Your task to perform on an android device: View the shopping cart on costco. Add "razer huntsman" to the cart on costco, then select checkout. Image 0: 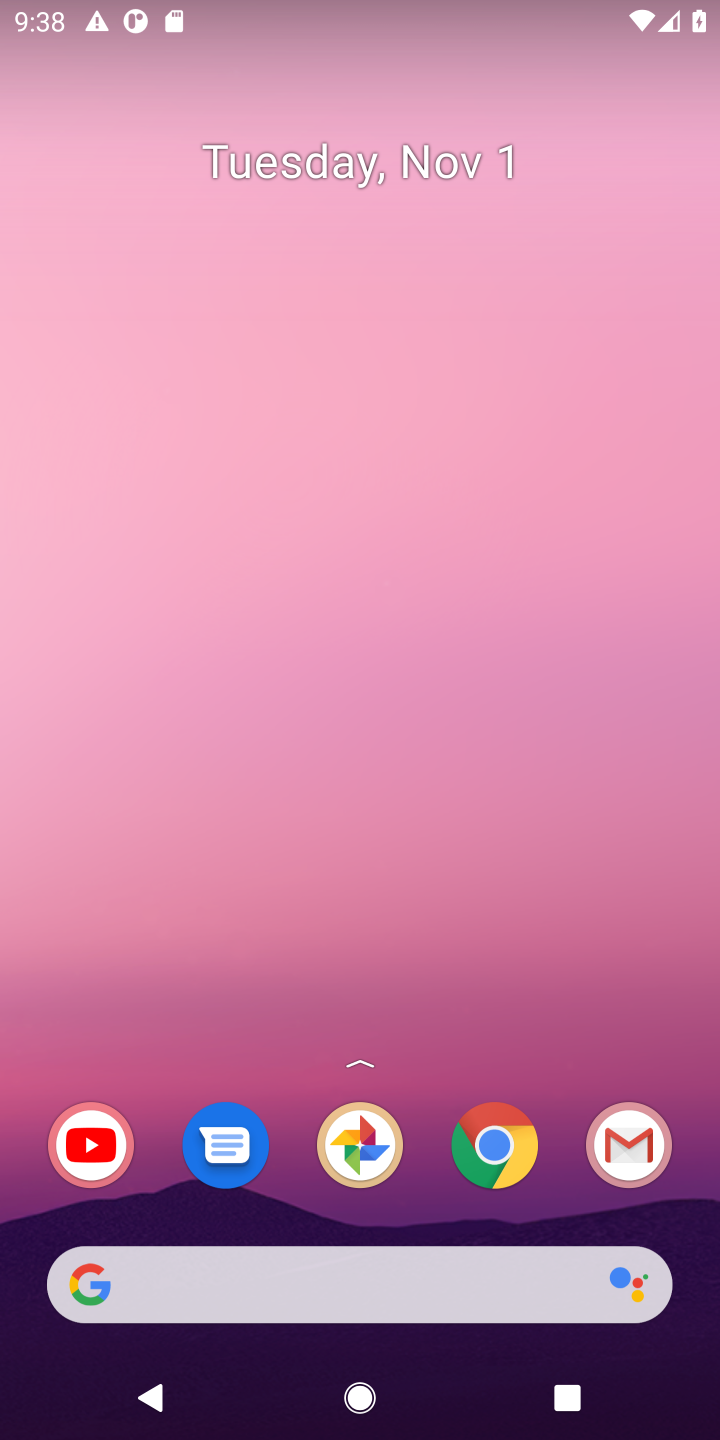
Step 0: press home button
Your task to perform on an android device: View the shopping cart on costco. Add "razer huntsman" to the cart on costco, then select checkout. Image 1: 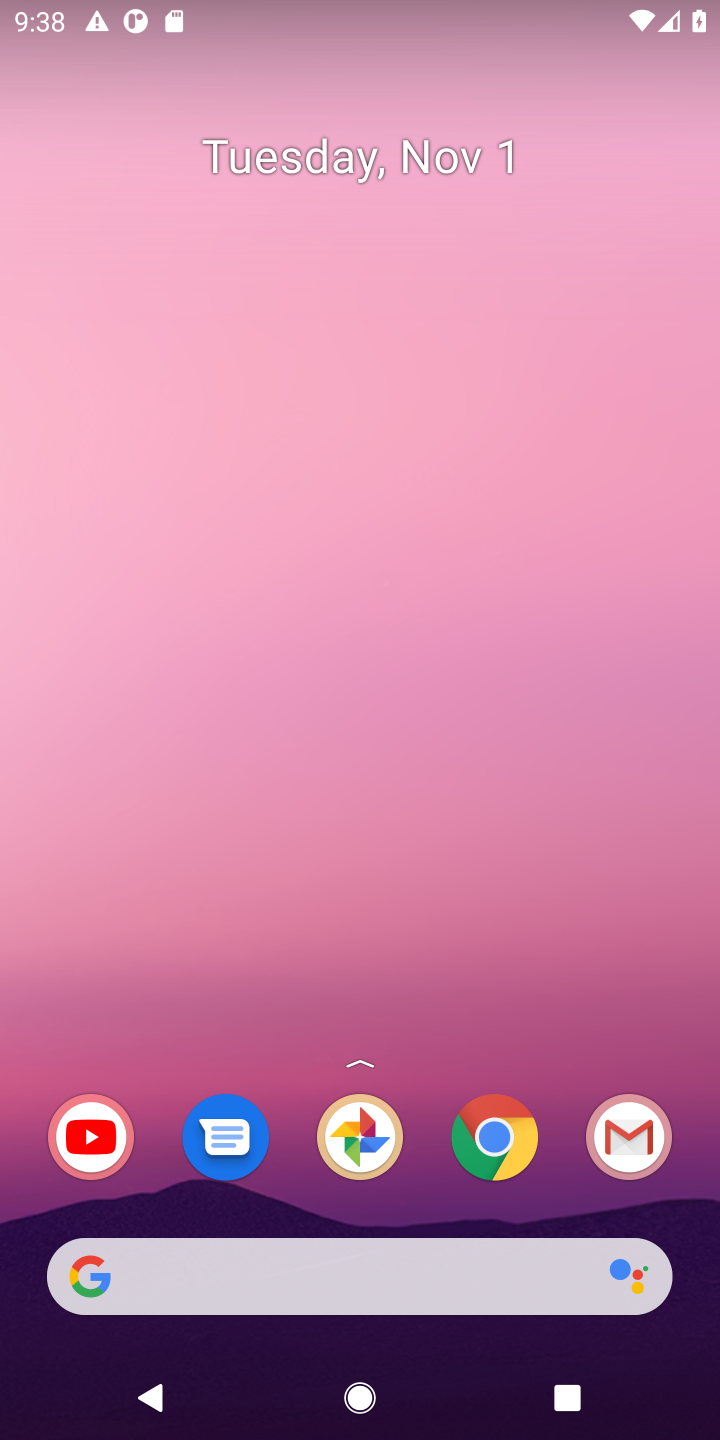
Step 1: drag from (318, 1166) to (362, 349)
Your task to perform on an android device: View the shopping cart on costco. Add "razer huntsman" to the cart on costco, then select checkout. Image 2: 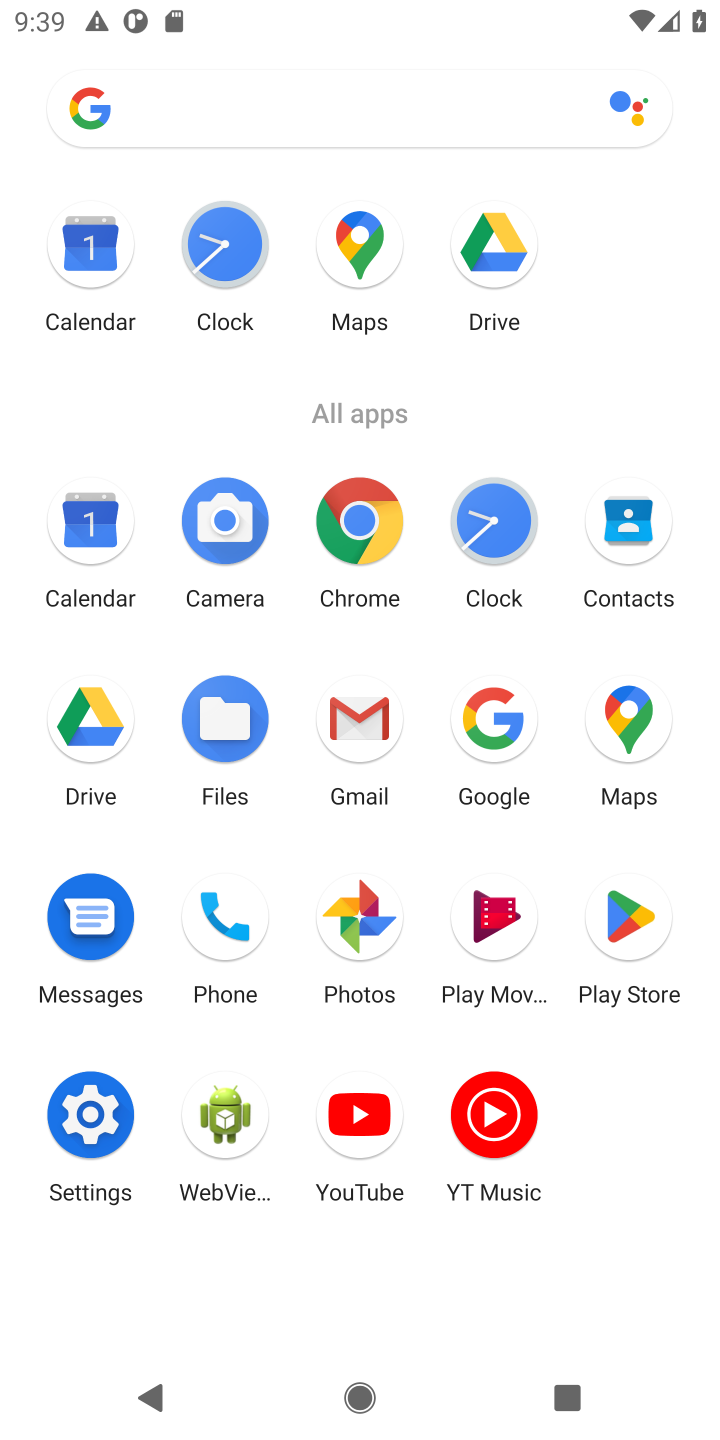
Step 2: click (493, 712)
Your task to perform on an android device: View the shopping cart on costco. Add "razer huntsman" to the cart on costco, then select checkout. Image 3: 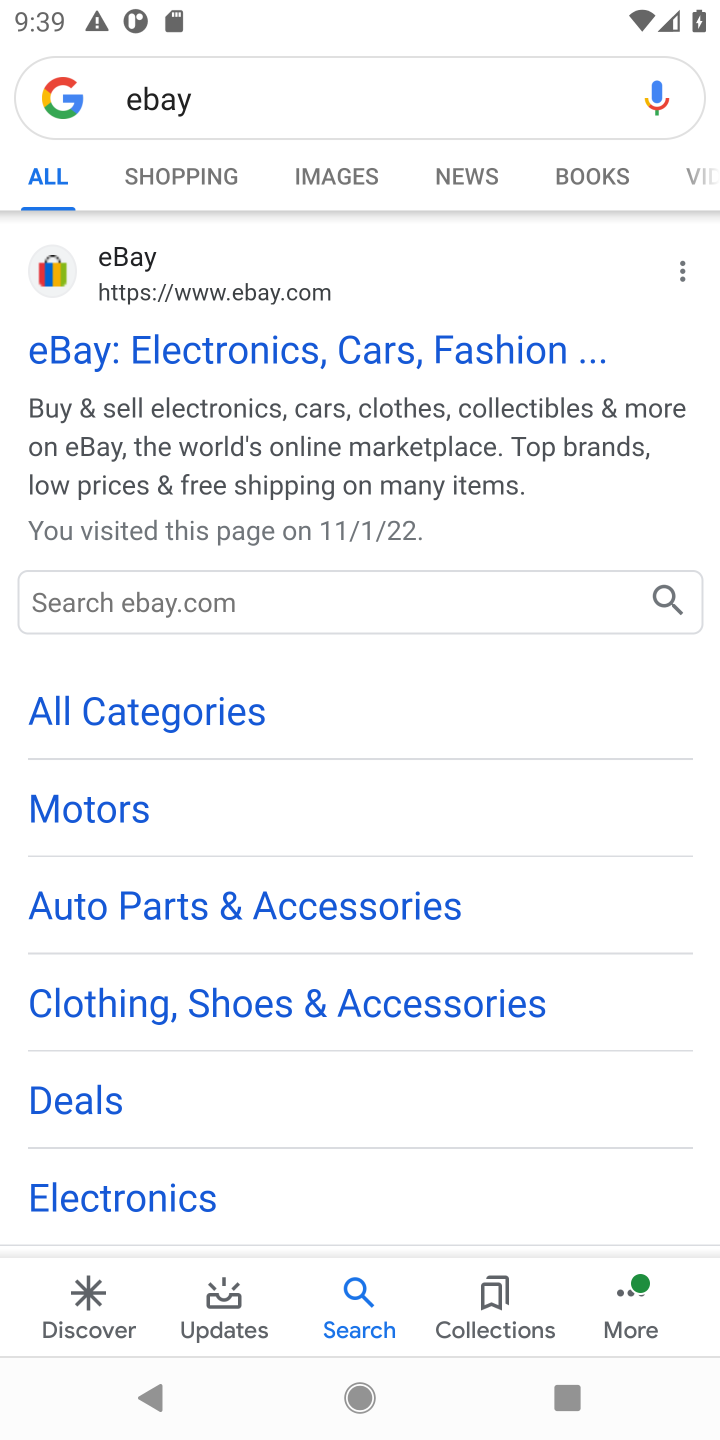
Step 3: click (157, 294)
Your task to perform on an android device: View the shopping cart on costco. Add "razer huntsman" to the cart on costco, then select checkout. Image 4: 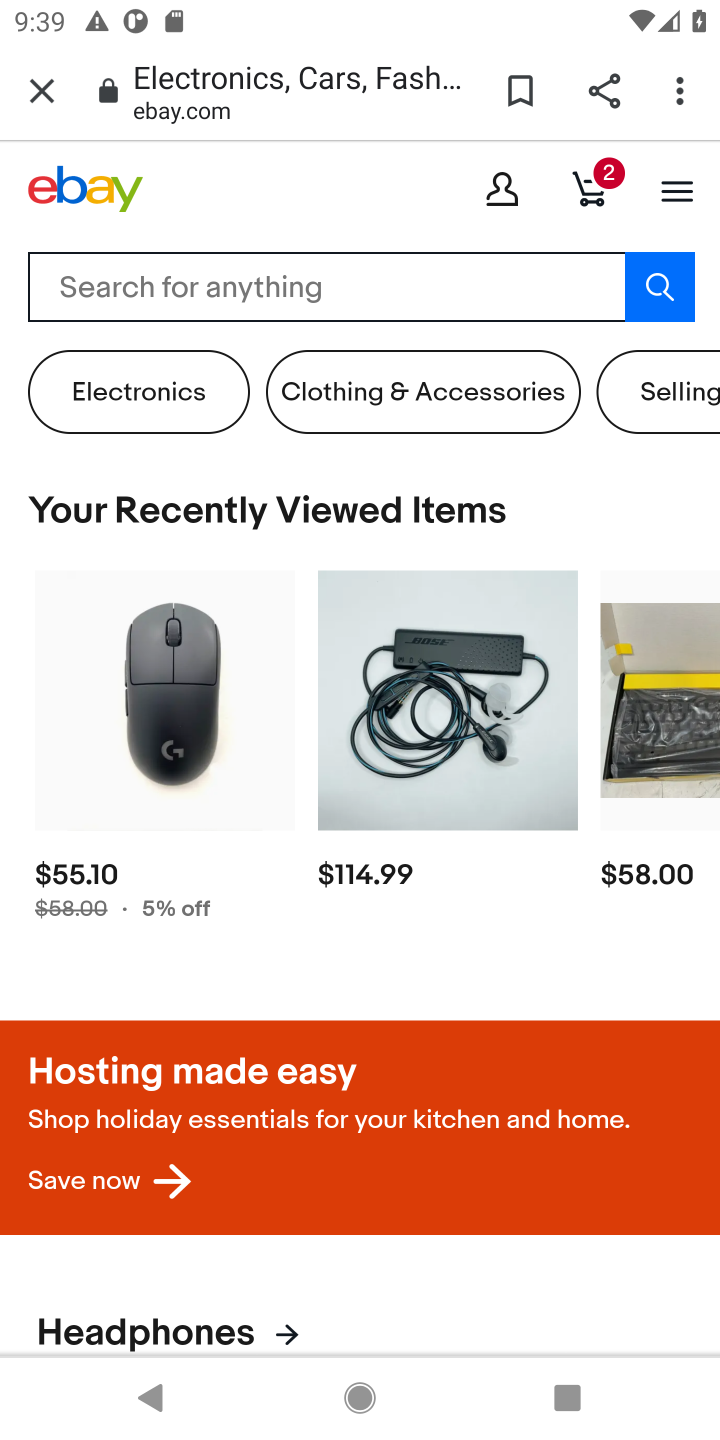
Step 4: click (33, 100)
Your task to perform on an android device: View the shopping cart on costco. Add "razer huntsman" to the cart on costco, then select checkout. Image 5: 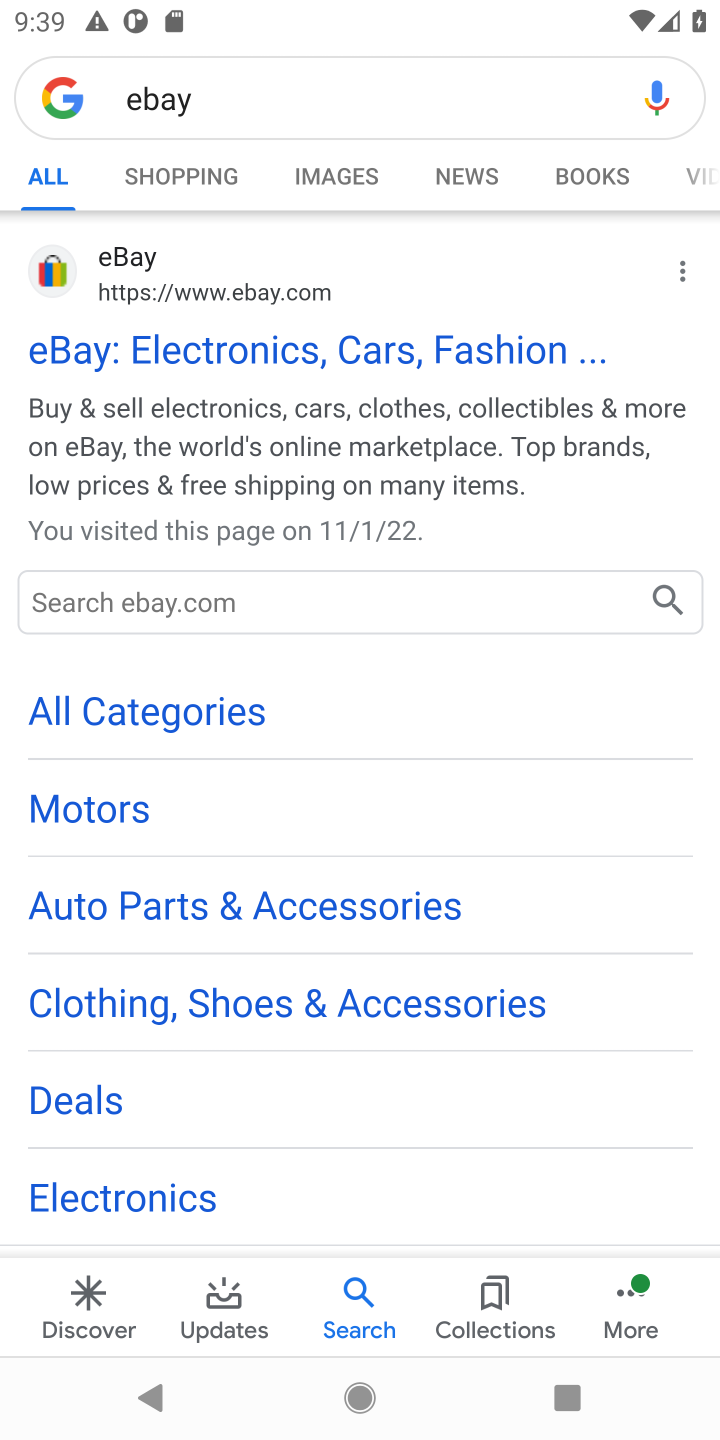
Step 5: click (267, 92)
Your task to perform on an android device: View the shopping cart on costco. Add "razer huntsman" to the cart on costco, then select checkout. Image 6: 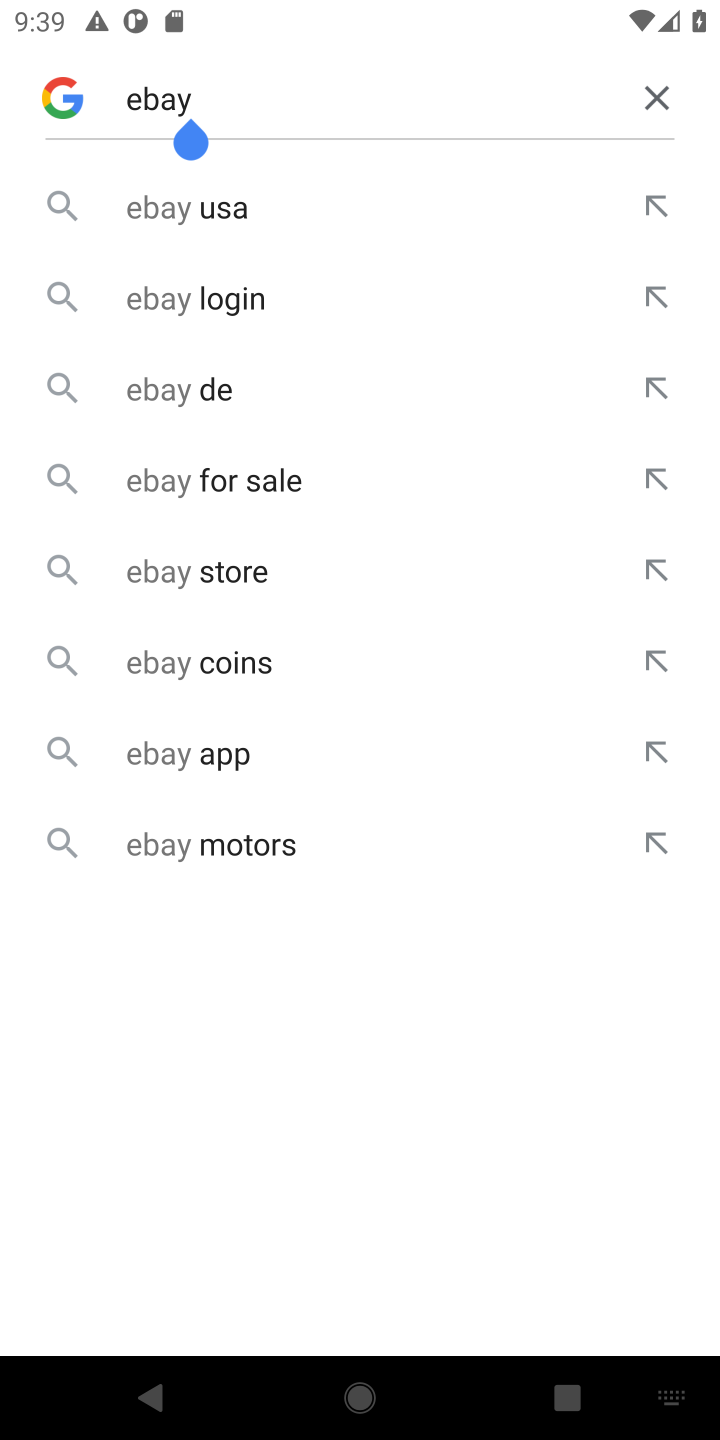
Step 6: click (653, 97)
Your task to perform on an android device: View the shopping cart on costco. Add "razer huntsman" to the cart on costco, then select checkout. Image 7: 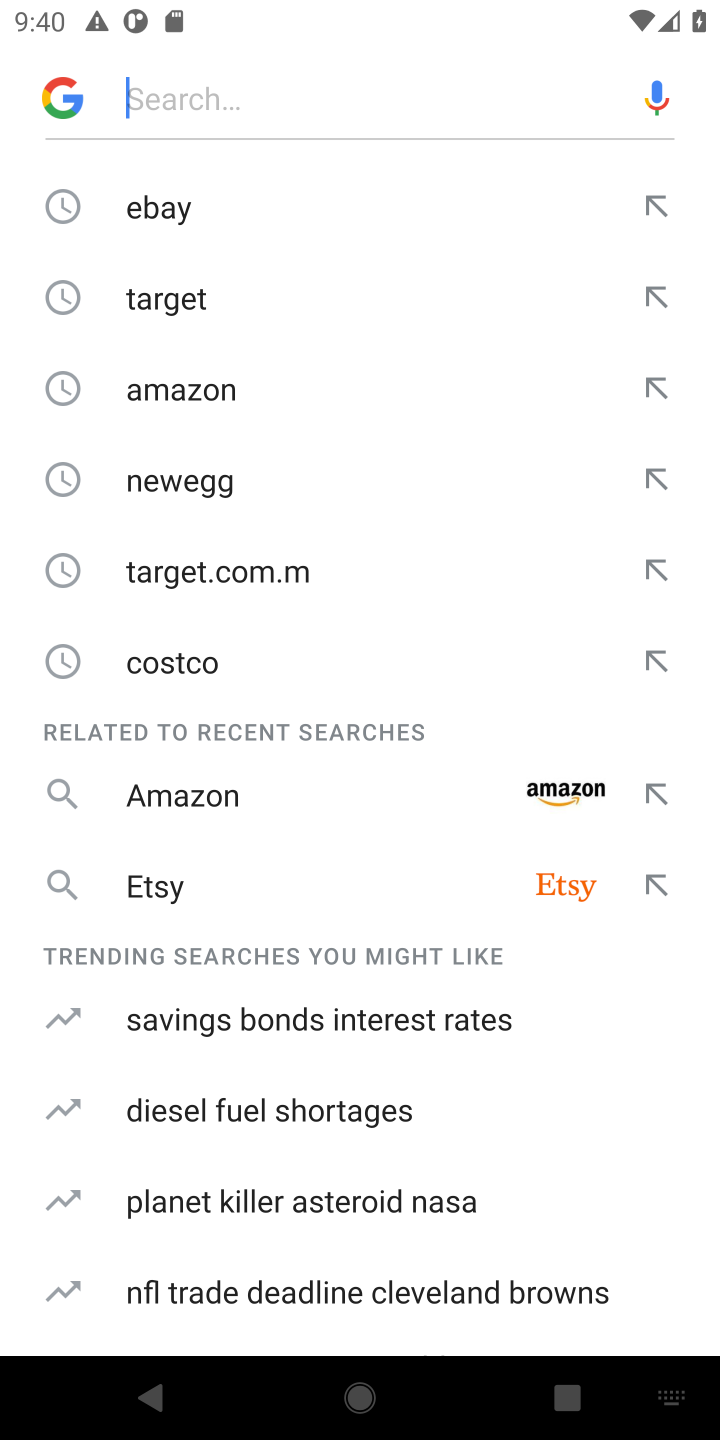
Step 7: click (171, 665)
Your task to perform on an android device: View the shopping cart on costco. Add "razer huntsman" to the cart on costco, then select checkout. Image 8: 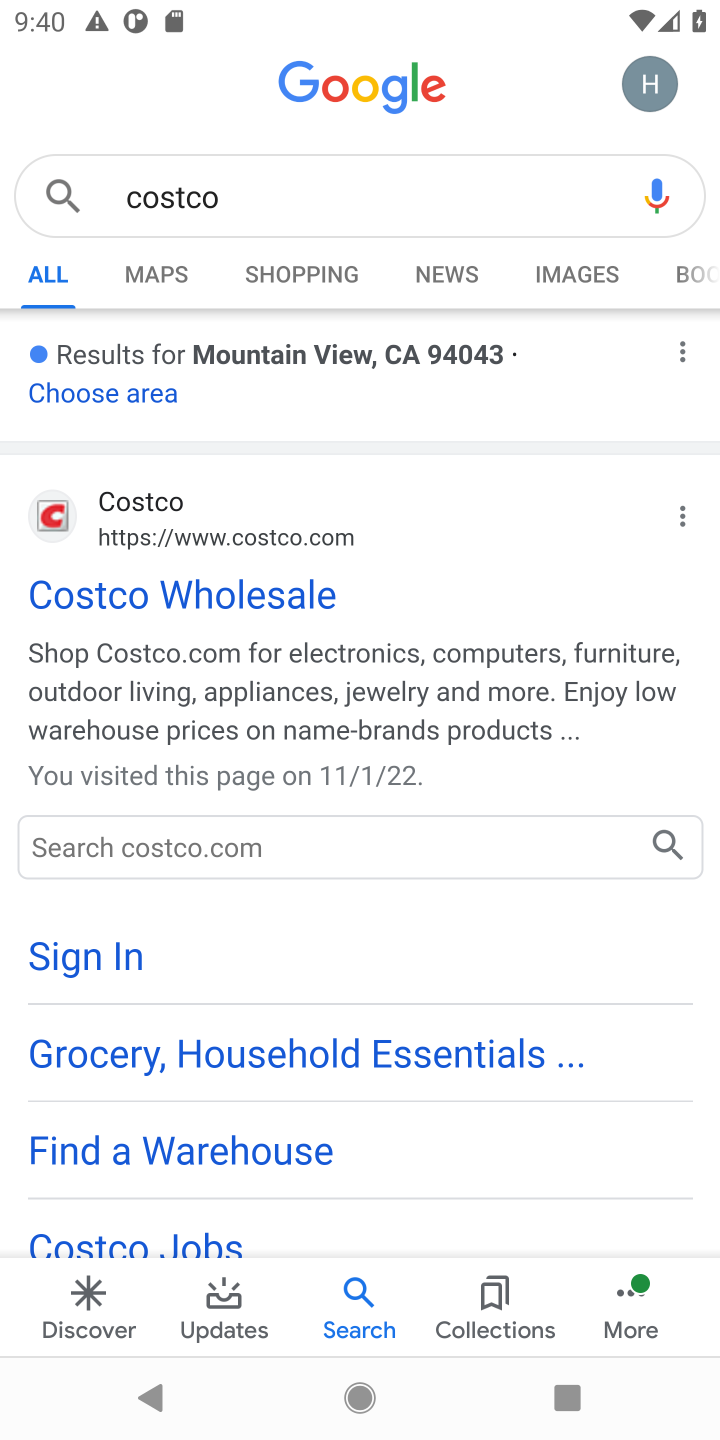
Step 8: click (134, 497)
Your task to perform on an android device: View the shopping cart on costco. Add "razer huntsman" to the cart on costco, then select checkout. Image 9: 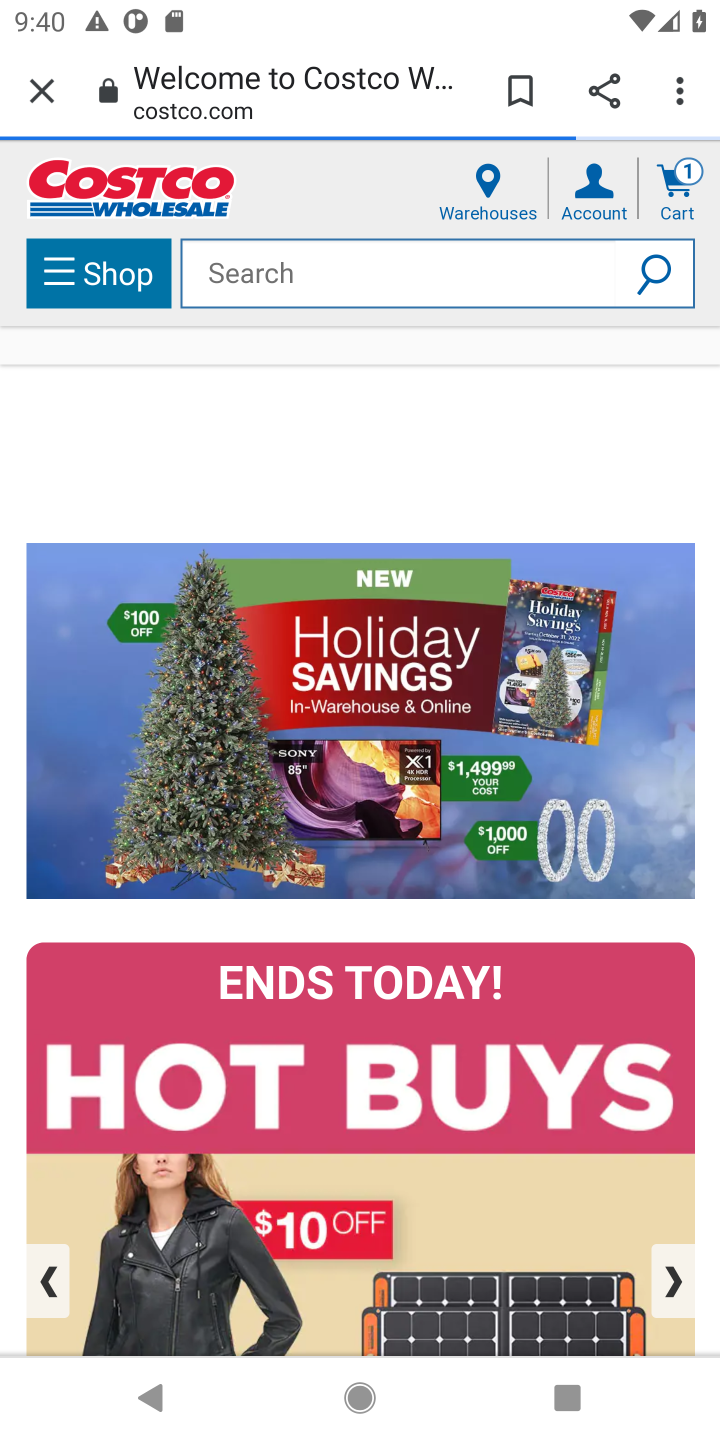
Step 9: click (381, 287)
Your task to perform on an android device: View the shopping cart on costco. Add "razer huntsman" to the cart on costco, then select checkout. Image 10: 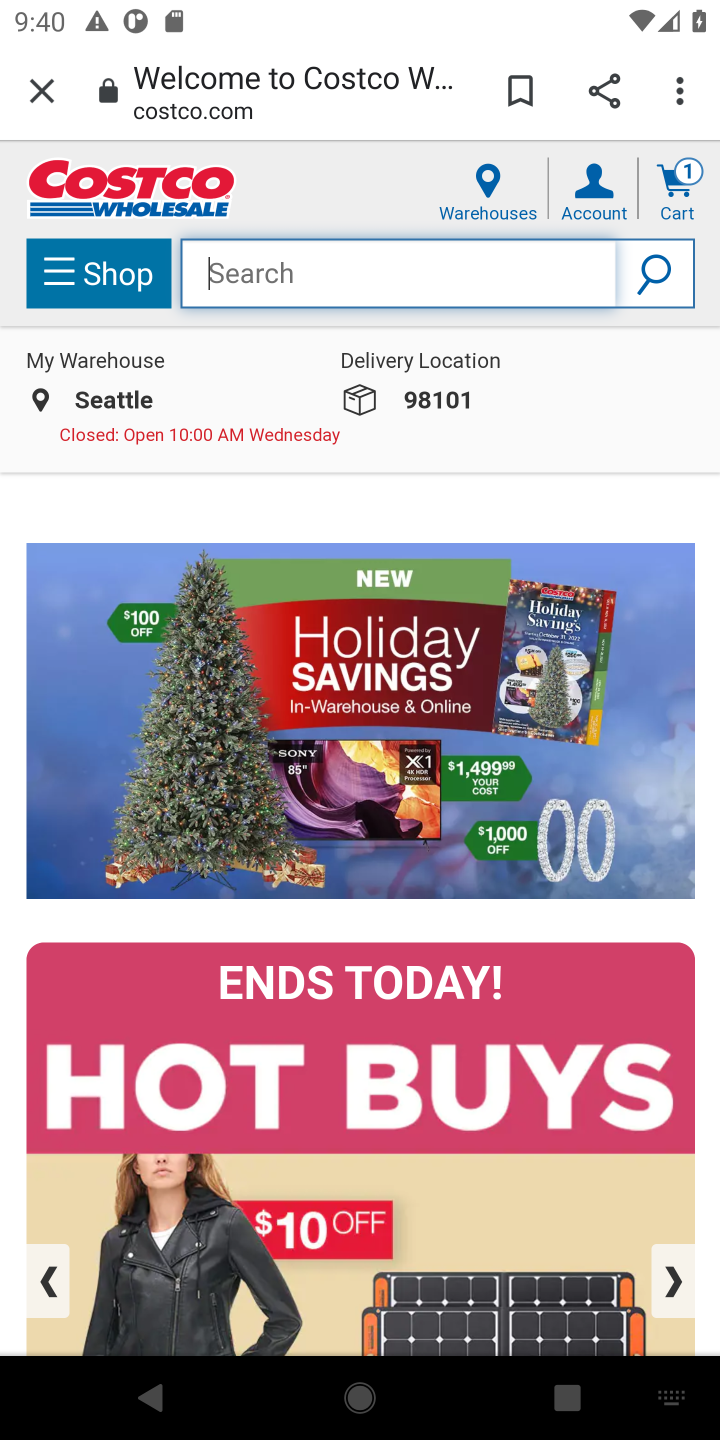
Step 10: click (381, 287)
Your task to perform on an android device: View the shopping cart on costco. Add "razer huntsman" to the cart on costco, then select checkout. Image 11: 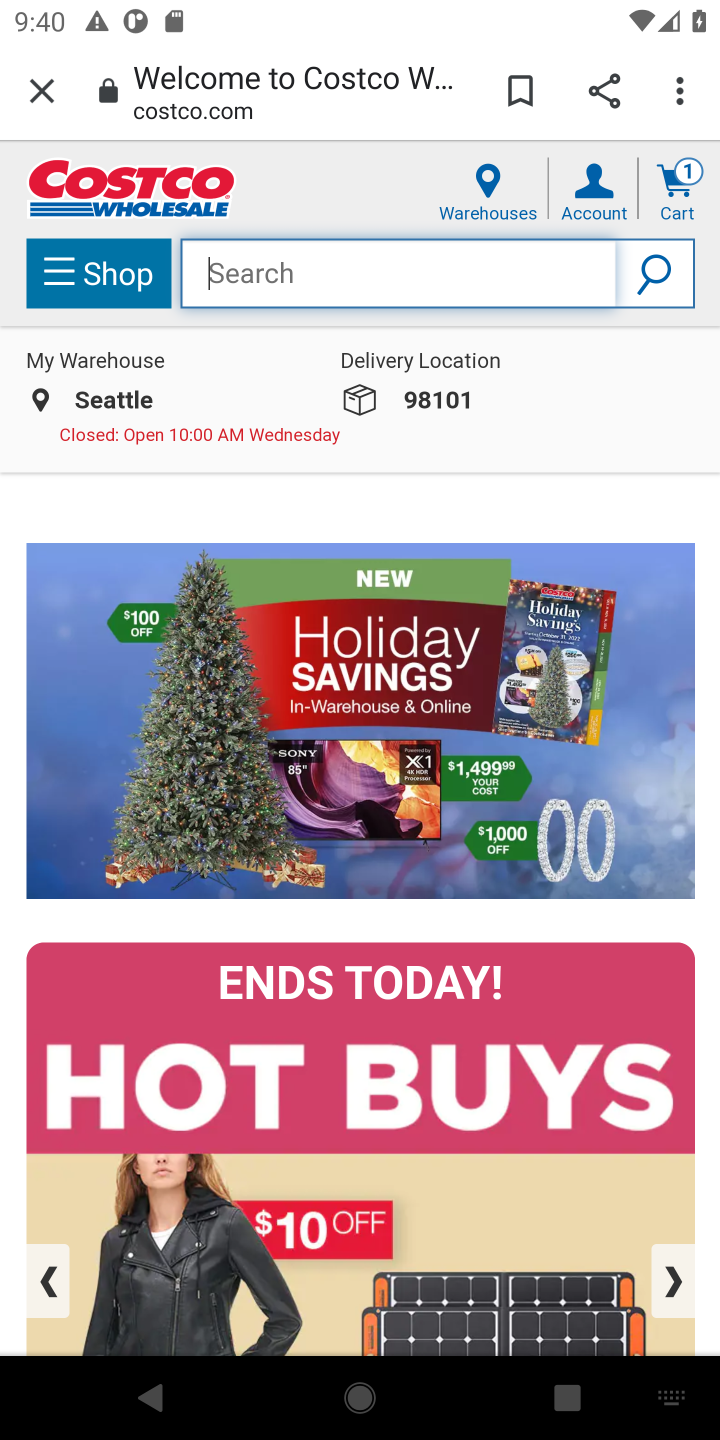
Step 11: type "razer huntsman"
Your task to perform on an android device: View the shopping cart on costco. Add "razer huntsman" to the cart on costco, then select checkout. Image 12: 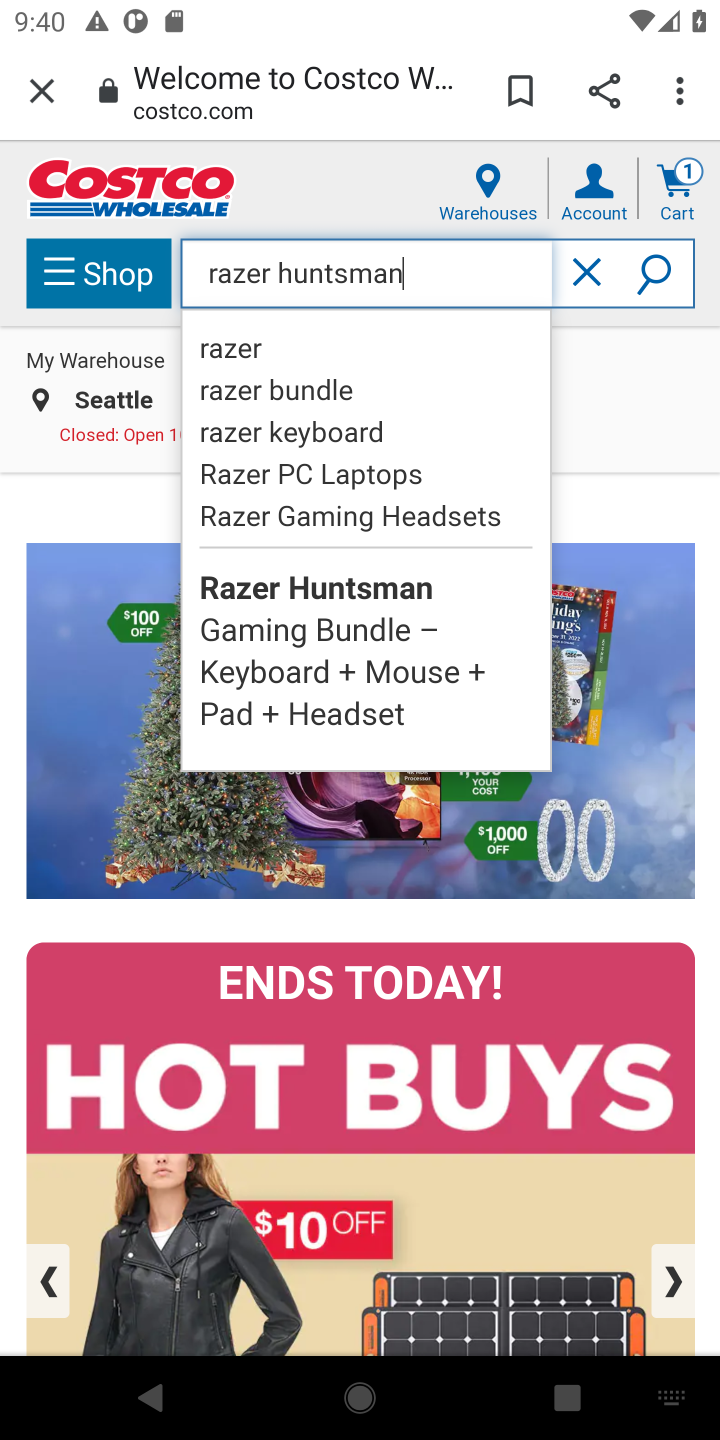
Step 12: click (232, 340)
Your task to perform on an android device: View the shopping cart on costco. Add "razer huntsman" to the cart on costco, then select checkout. Image 13: 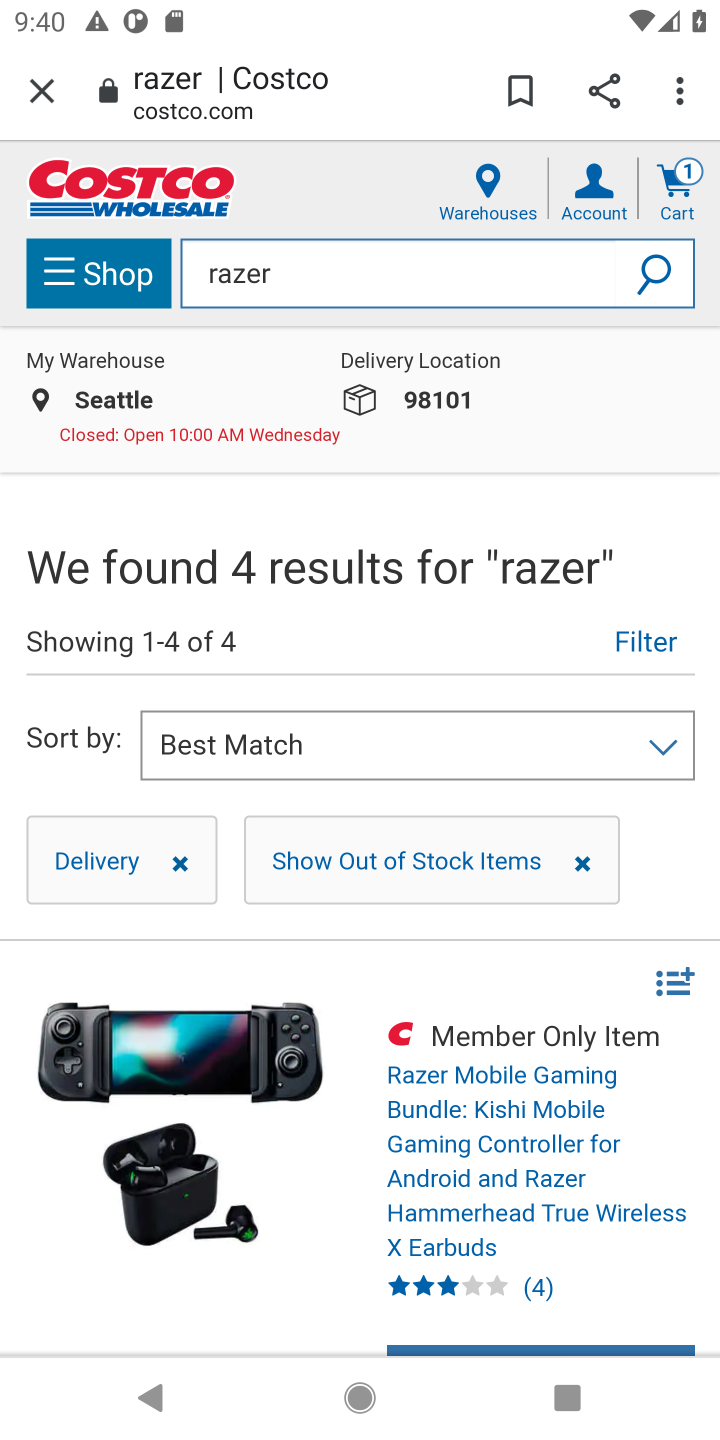
Step 13: click (434, 1161)
Your task to perform on an android device: View the shopping cart on costco. Add "razer huntsman" to the cart on costco, then select checkout. Image 14: 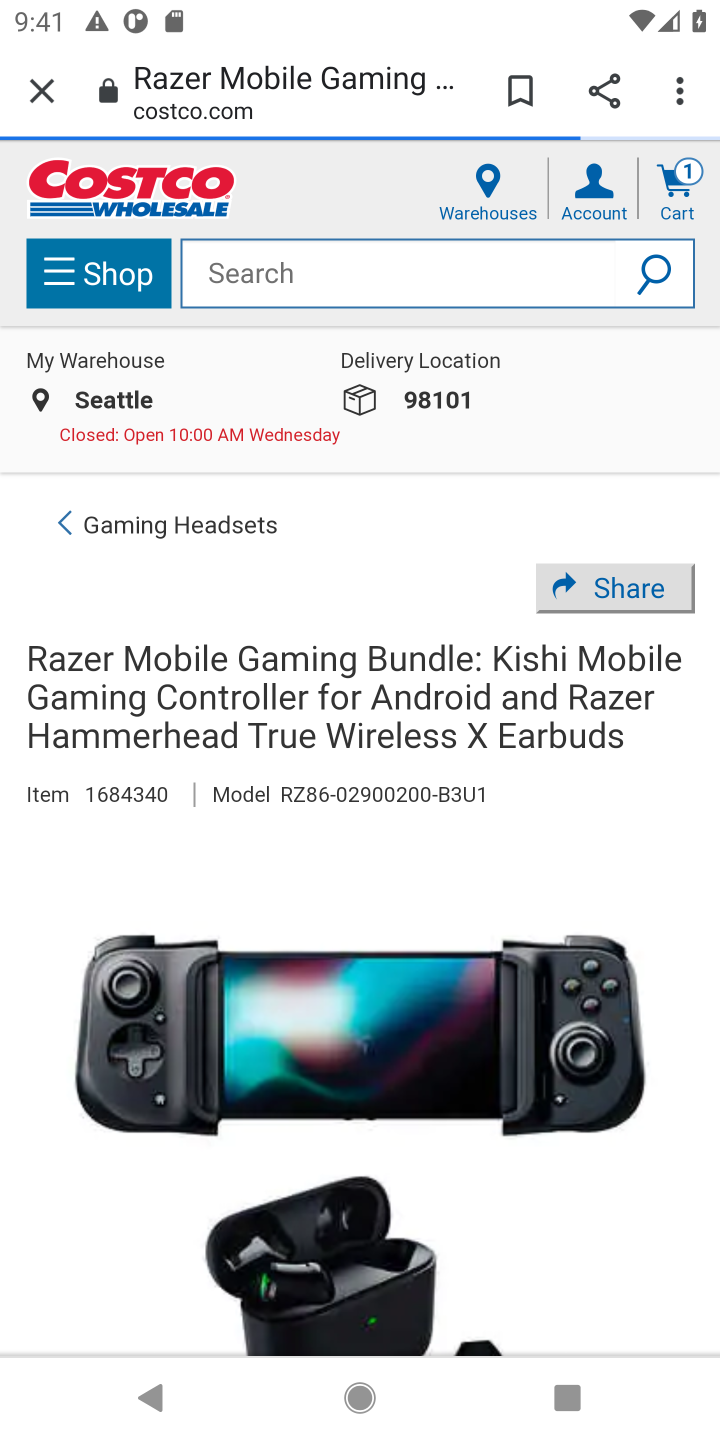
Step 14: drag from (427, 971) to (427, 772)
Your task to perform on an android device: View the shopping cart on costco. Add "razer huntsman" to the cart on costco, then select checkout. Image 15: 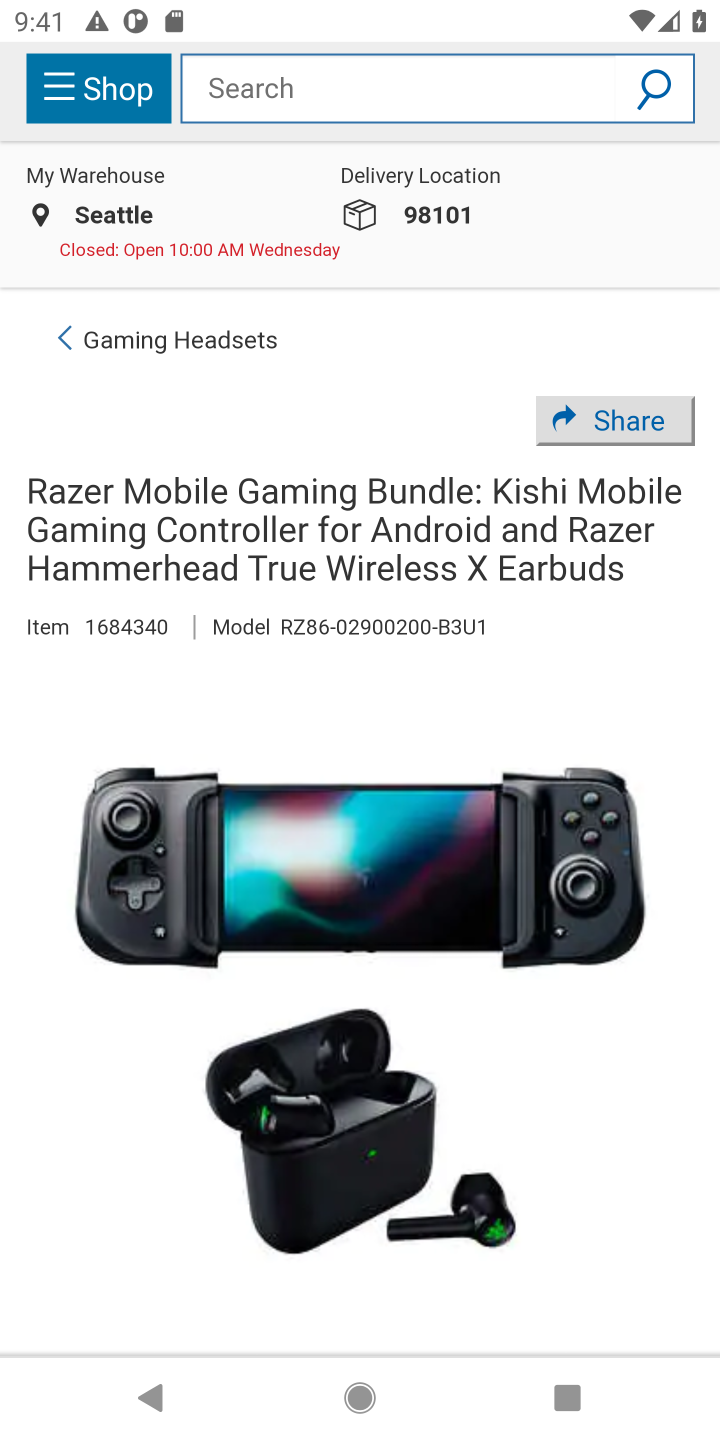
Step 15: drag from (479, 1073) to (471, 427)
Your task to perform on an android device: View the shopping cart on costco. Add "razer huntsman" to the cart on costco, then select checkout. Image 16: 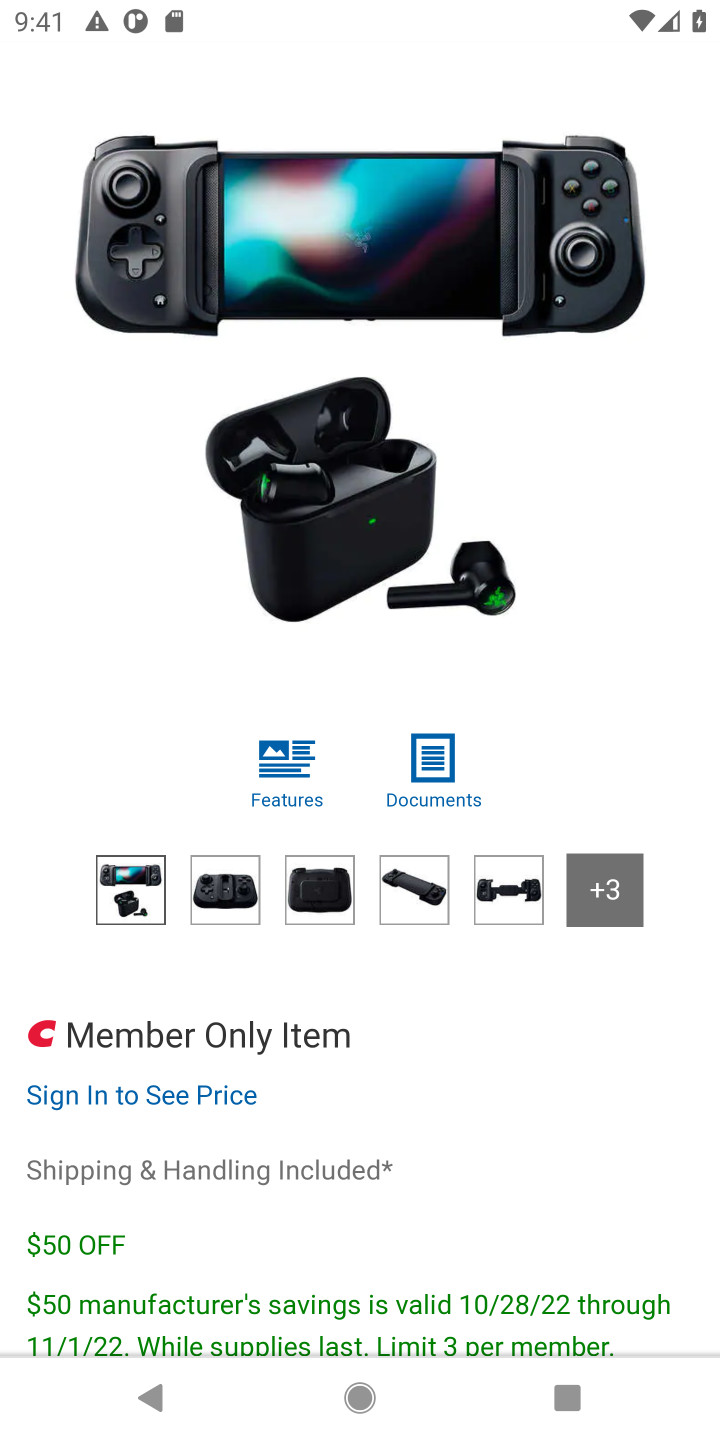
Step 16: drag from (375, 1033) to (471, 712)
Your task to perform on an android device: View the shopping cart on costco. Add "razer huntsman" to the cart on costco, then select checkout. Image 17: 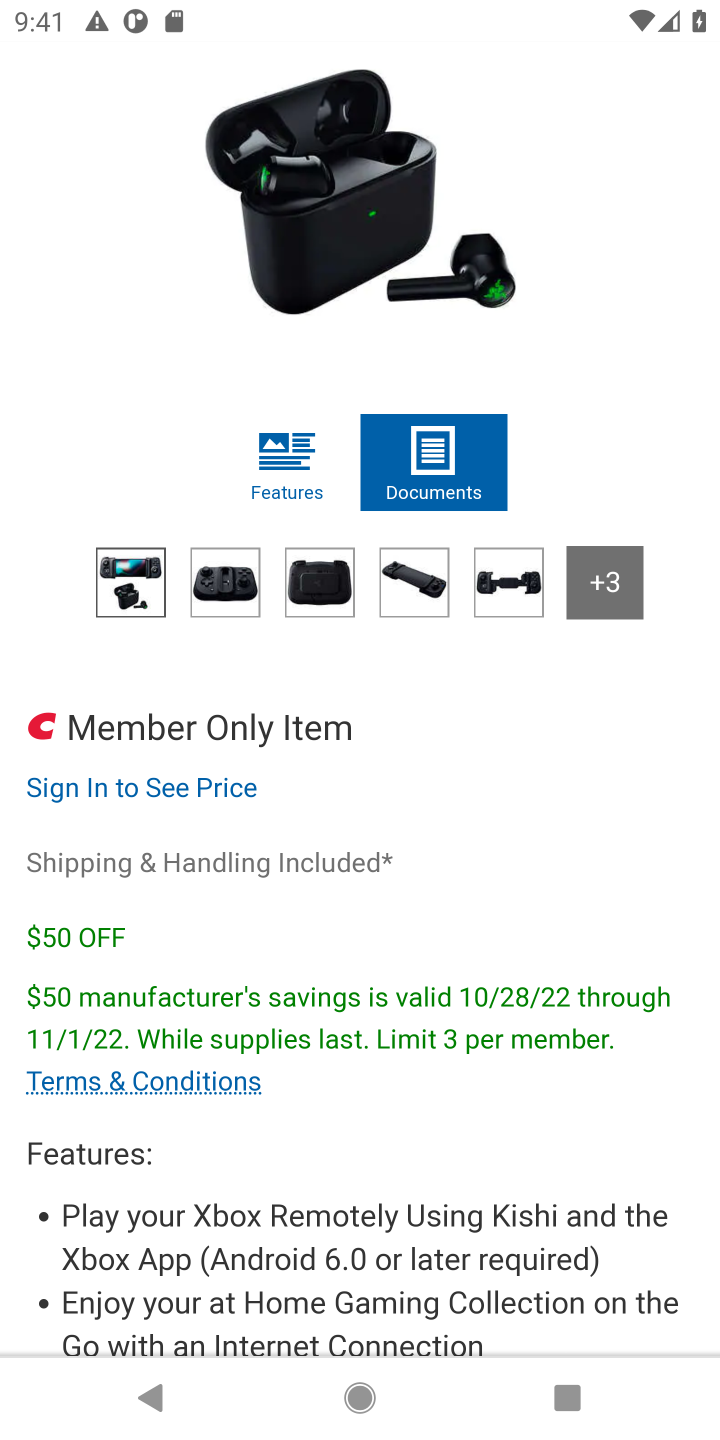
Step 17: drag from (306, 1225) to (336, 750)
Your task to perform on an android device: View the shopping cart on costco. Add "razer huntsman" to the cart on costco, then select checkout. Image 18: 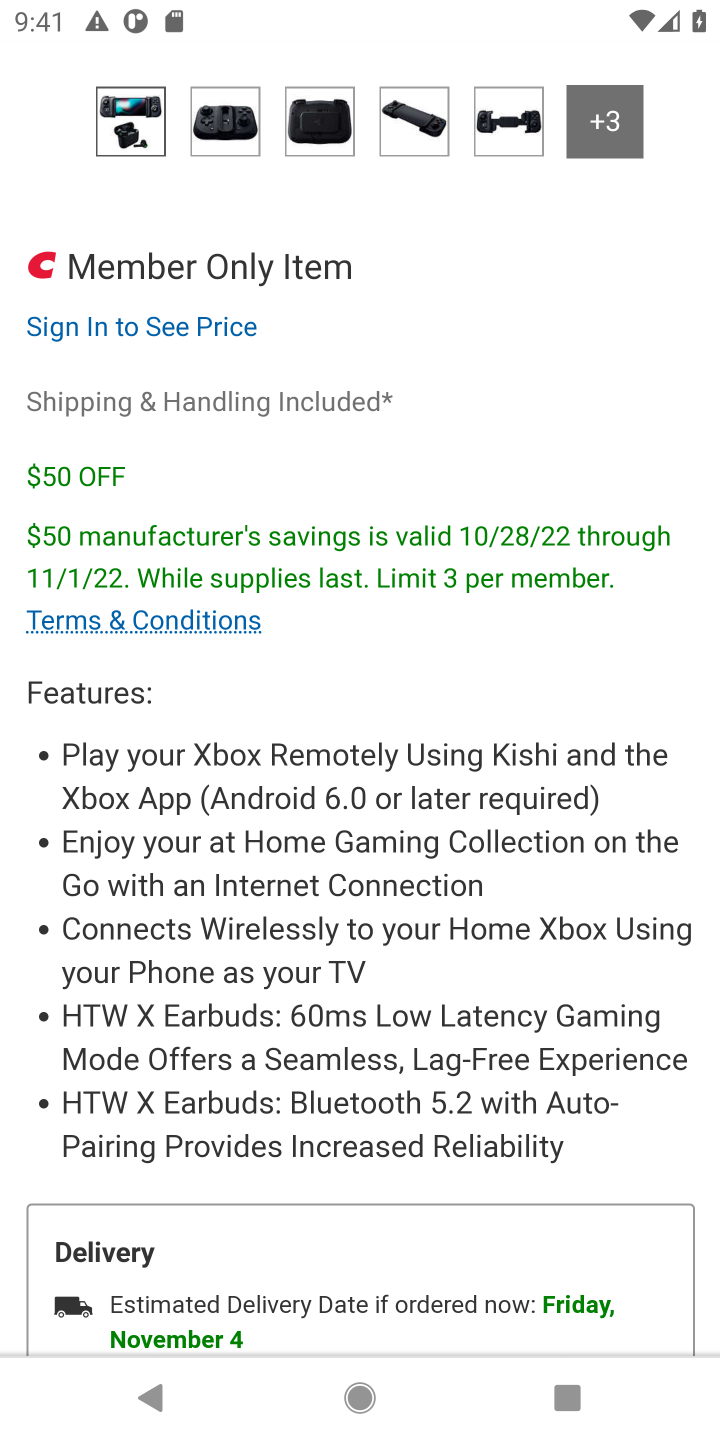
Step 18: drag from (293, 1268) to (363, 737)
Your task to perform on an android device: View the shopping cart on costco. Add "razer huntsman" to the cart on costco, then select checkout. Image 19: 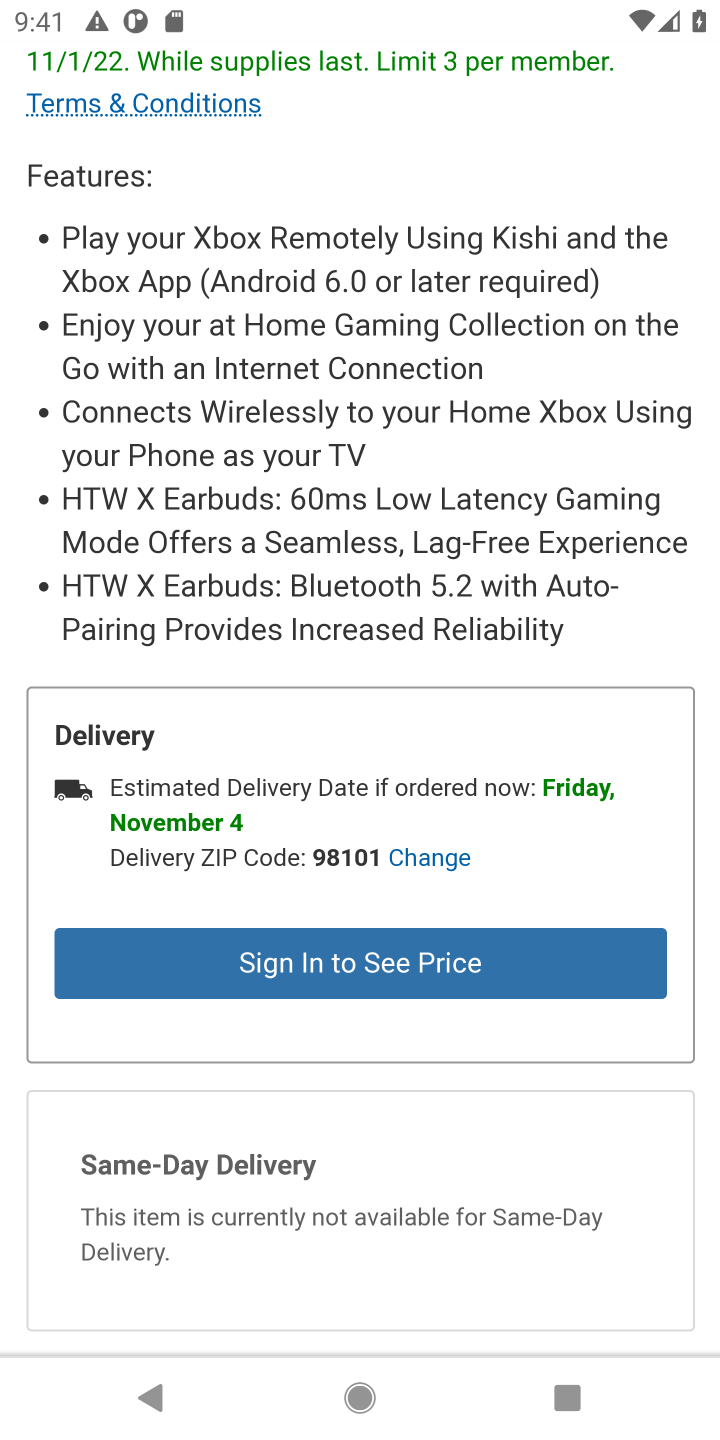
Step 19: drag from (283, 1099) to (309, 896)
Your task to perform on an android device: View the shopping cart on costco. Add "razer huntsman" to the cart on costco, then select checkout. Image 20: 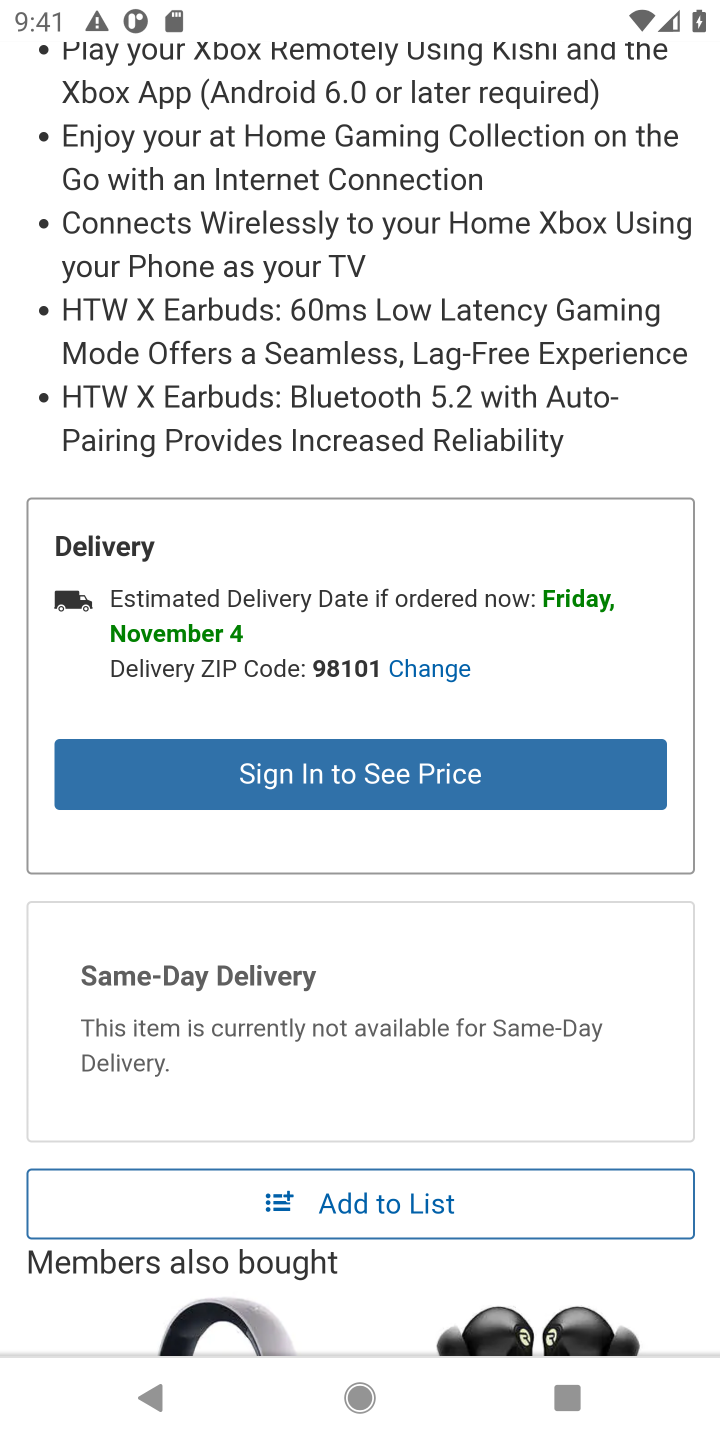
Step 20: click (351, 1205)
Your task to perform on an android device: View the shopping cart on costco. Add "razer huntsman" to the cart on costco, then select checkout. Image 21: 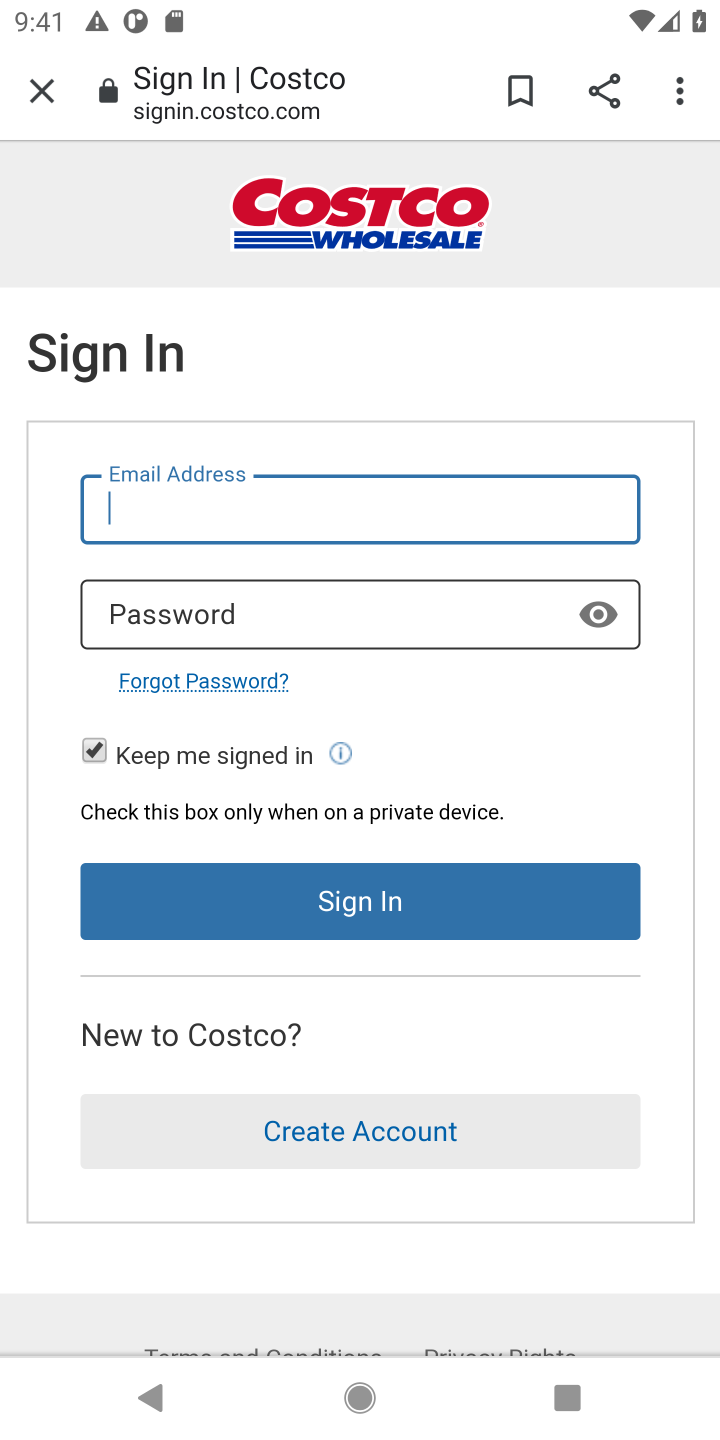
Step 21: task complete